Your task to perform on an android device: Turn on the flashlight Image 0: 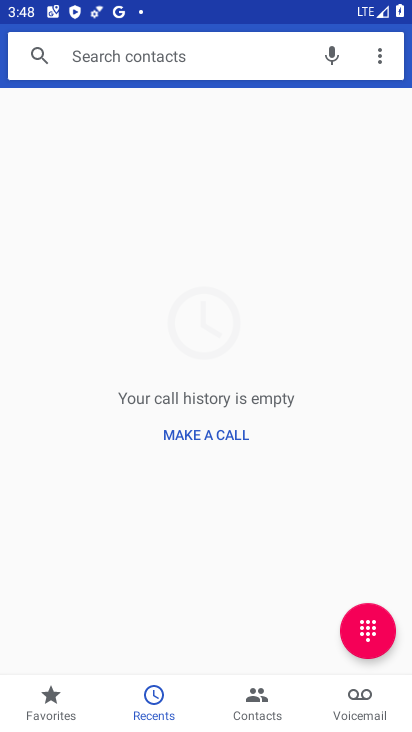
Step 0: press home button
Your task to perform on an android device: Turn on the flashlight Image 1: 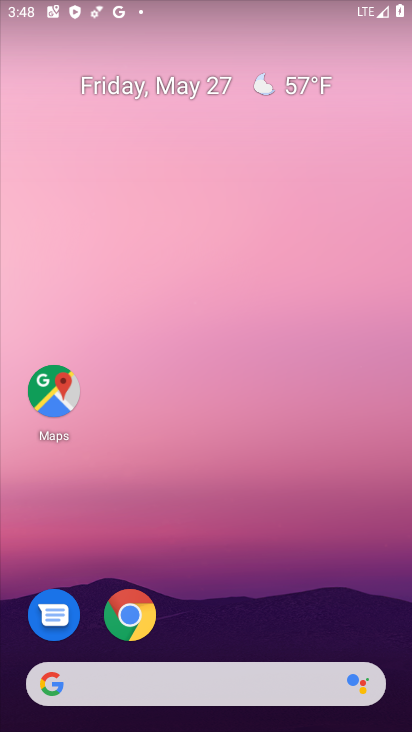
Step 1: drag from (218, 622) to (219, 0)
Your task to perform on an android device: Turn on the flashlight Image 2: 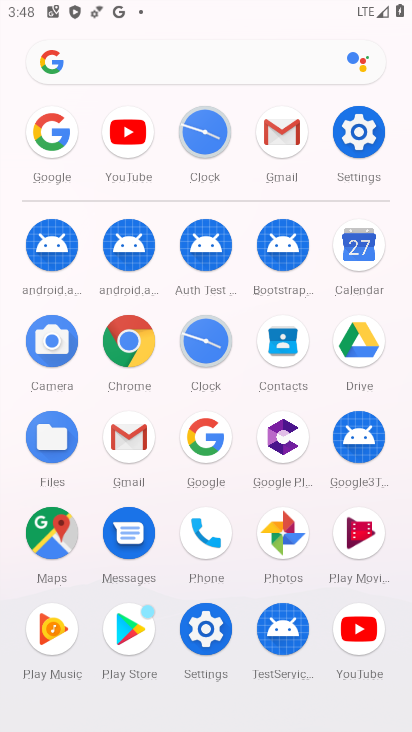
Step 2: click (350, 152)
Your task to perform on an android device: Turn on the flashlight Image 3: 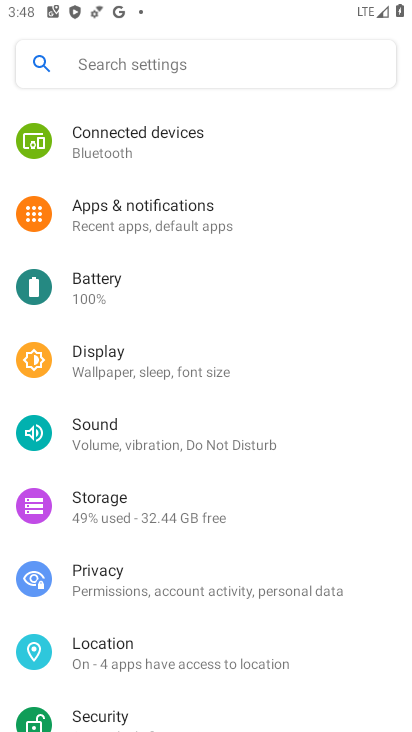
Step 3: task complete